Your task to perform on an android device: turn off location Image 0: 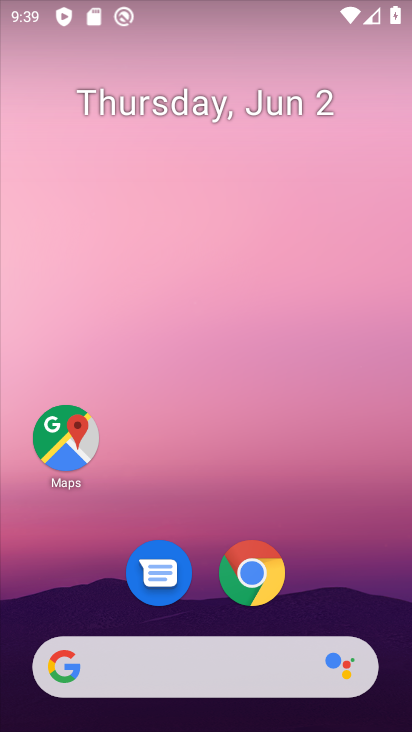
Step 0: drag from (338, 525) to (344, 117)
Your task to perform on an android device: turn off location Image 1: 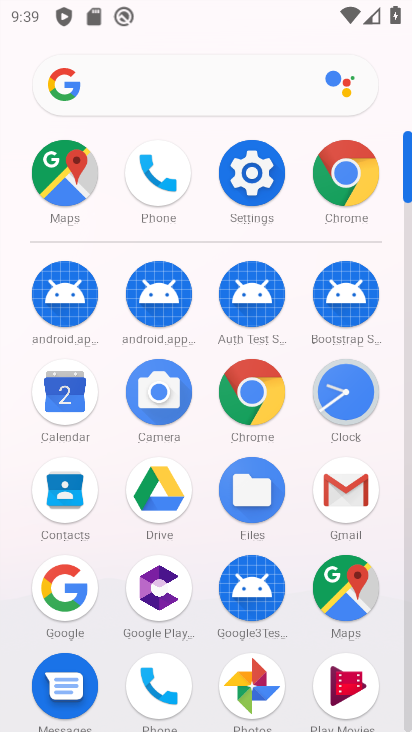
Step 1: click (268, 161)
Your task to perform on an android device: turn off location Image 2: 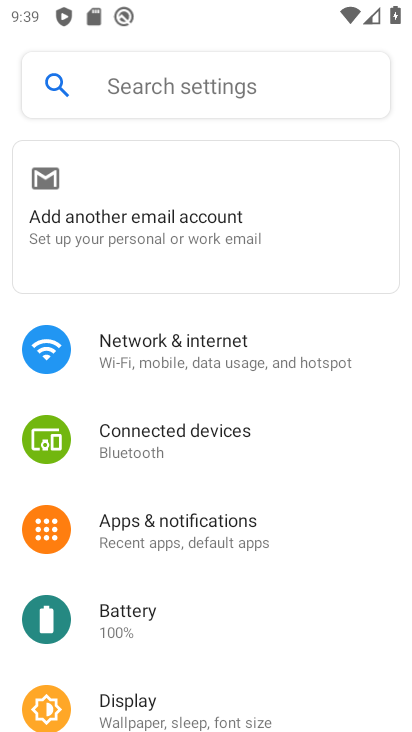
Step 2: drag from (250, 530) to (263, 232)
Your task to perform on an android device: turn off location Image 3: 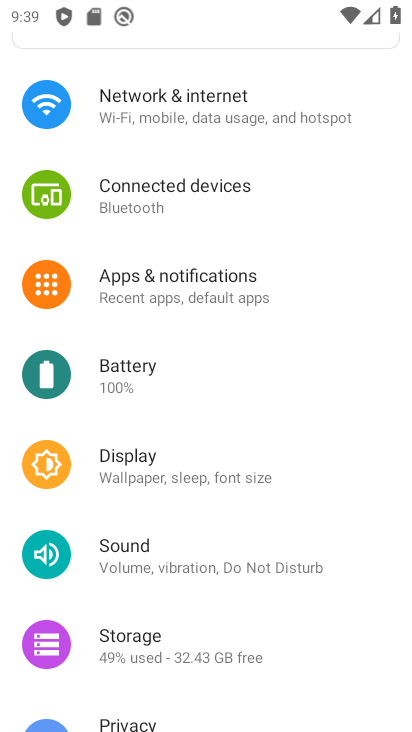
Step 3: drag from (237, 594) to (245, 316)
Your task to perform on an android device: turn off location Image 4: 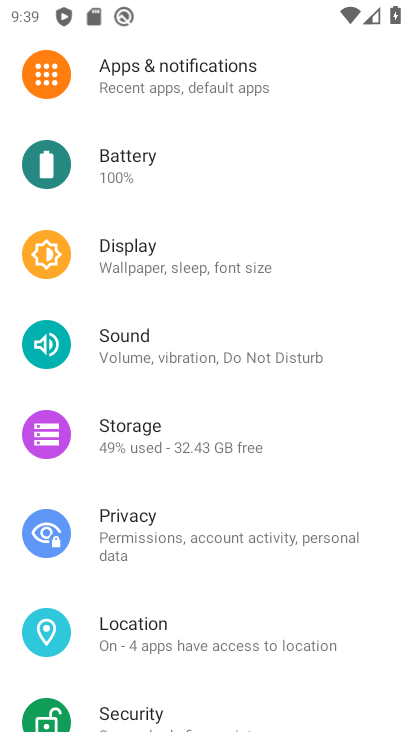
Step 4: click (168, 631)
Your task to perform on an android device: turn off location Image 5: 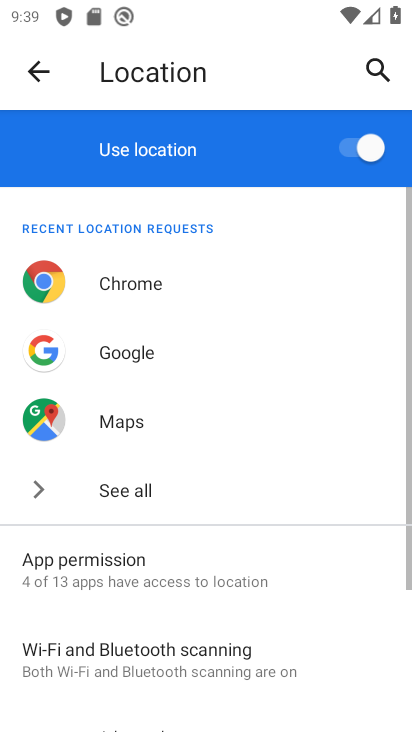
Step 5: click (362, 136)
Your task to perform on an android device: turn off location Image 6: 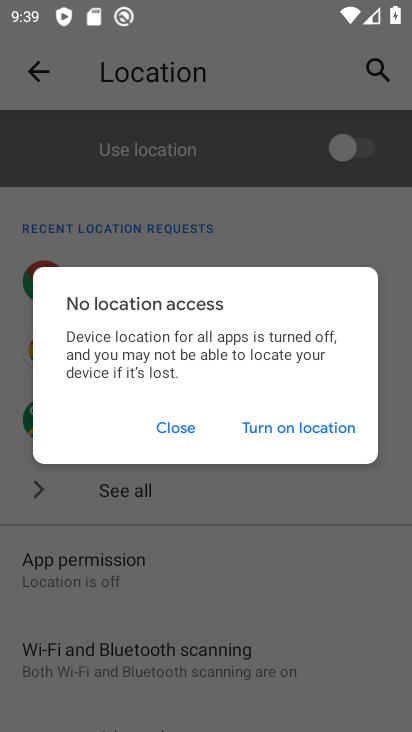
Step 6: task complete